Your task to perform on an android device: Open my contact list Image 0: 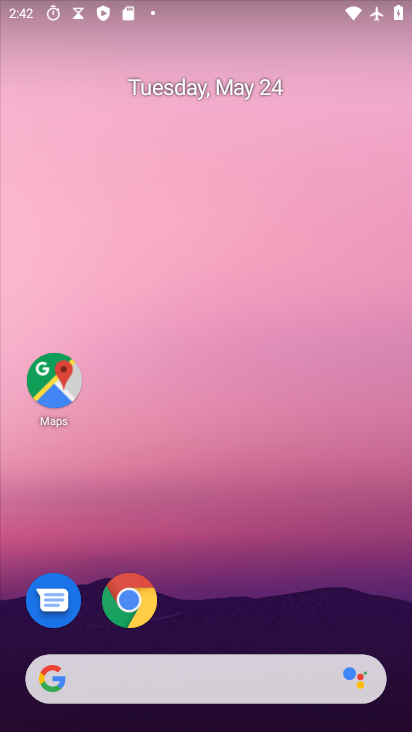
Step 0: drag from (266, 594) to (225, 54)
Your task to perform on an android device: Open my contact list Image 1: 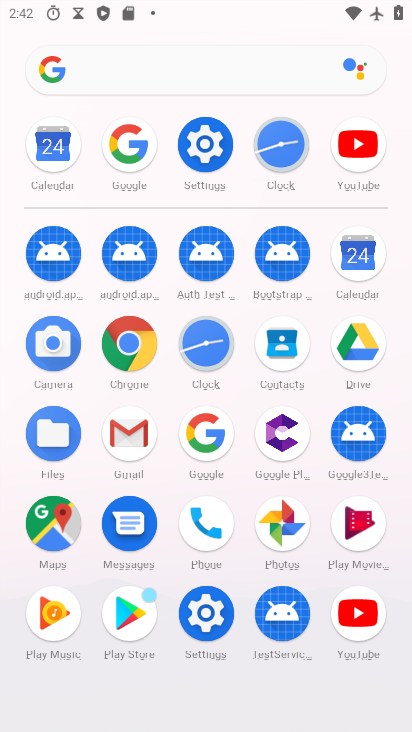
Step 1: click (277, 344)
Your task to perform on an android device: Open my contact list Image 2: 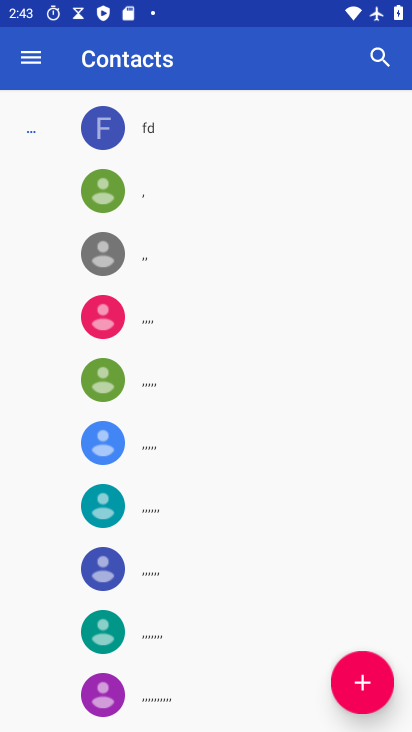
Step 2: press home button
Your task to perform on an android device: Open my contact list Image 3: 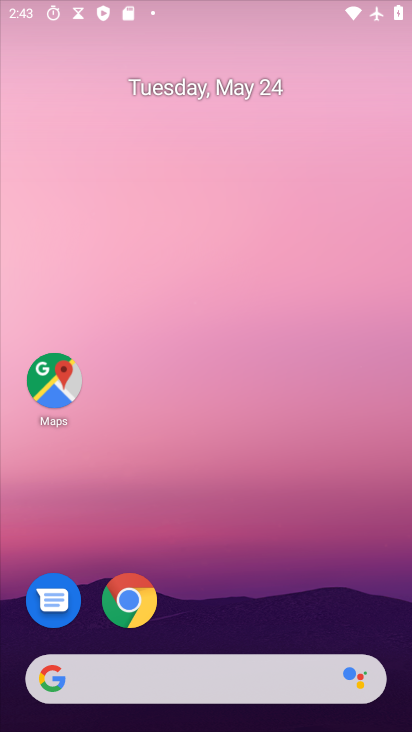
Step 3: drag from (311, 571) to (268, 26)
Your task to perform on an android device: Open my contact list Image 4: 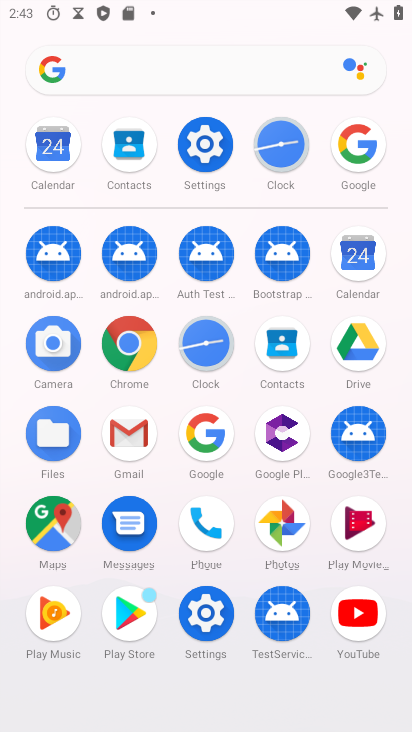
Step 4: click (282, 346)
Your task to perform on an android device: Open my contact list Image 5: 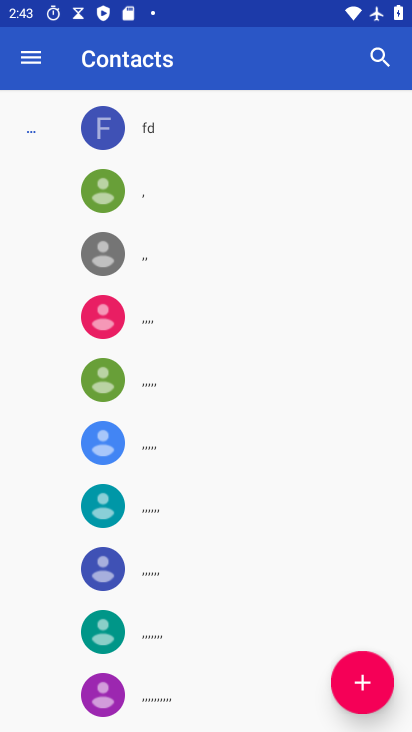
Step 5: task complete